Your task to perform on an android device: change the upload size in google photos Image 0: 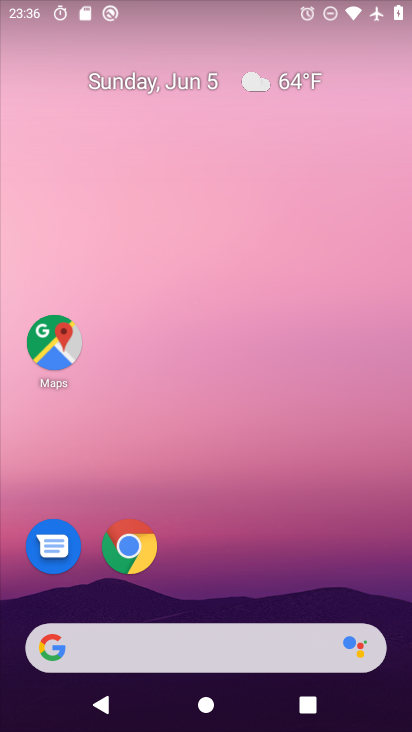
Step 0: click (345, 0)
Your task to perform on an android device: change the upload size in google photos Image 1: 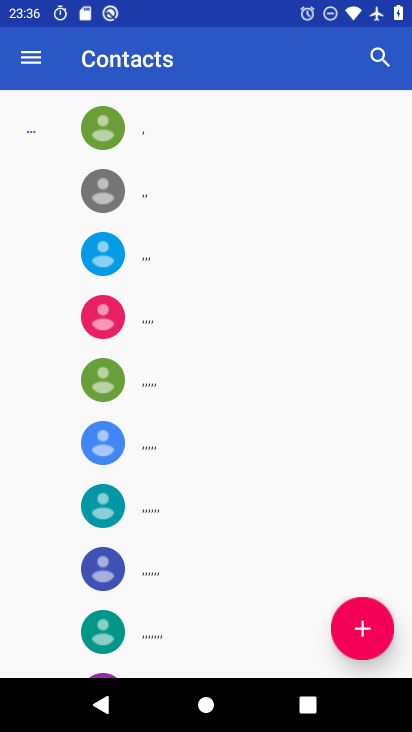
Step 1: drag from (176, 559) to (256, 315)
Your task to perform on an android device: change the upload size in google photos Image 2: 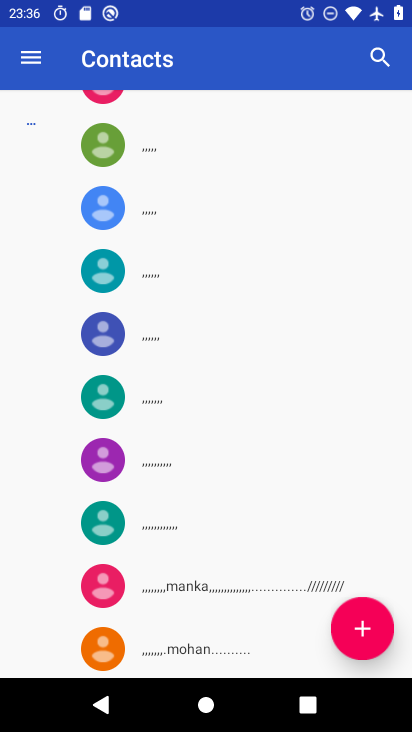
Step 2: press home button
Your task to perform on an android device: change the upload size in google photos Image 3: 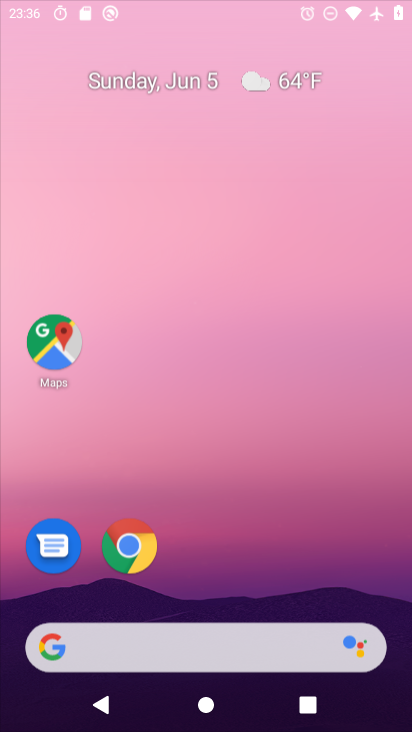
Step 3: drag from (214, 559) to (260, 330)
Your task to perform on an android device: change the upload size in google photos Image 4: 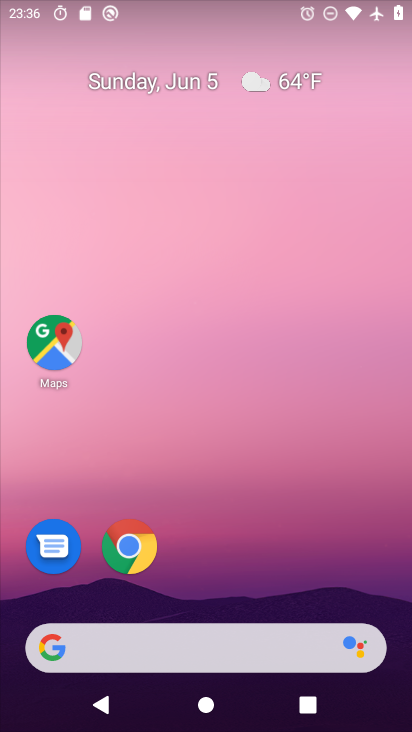
Step 4: drag from (190, 467) to (292, 8)
Your task to perform on an android device: change the upload size in google photos Image 5: 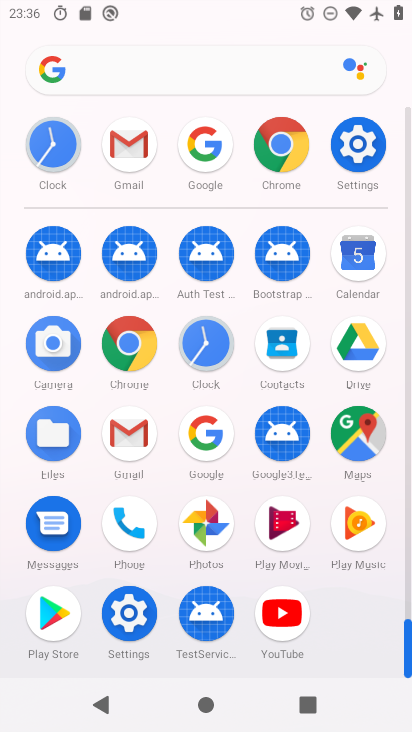
Step 5: click (197, 516)
Your task to perform on an android device: change the upload size in google photos Image 6: 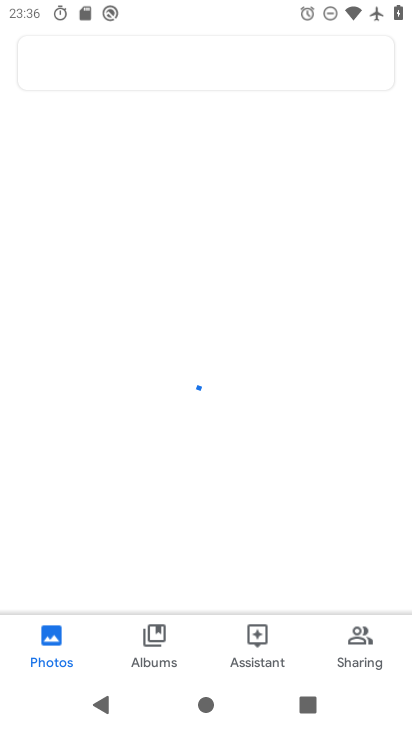
Step 6: drag from (196, 511) to (187, 174)
Your task to perform on an android device: change the upload size in google photos Image 7: 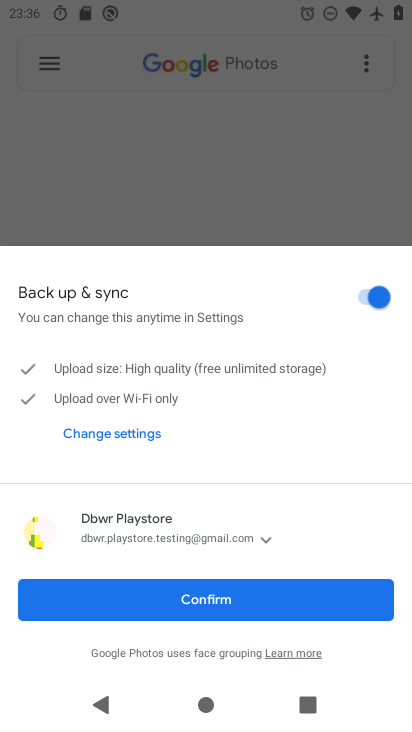
Step 7: click (150, 608)
Your task to perform on an android device: change the upload size in google photos Image 8: 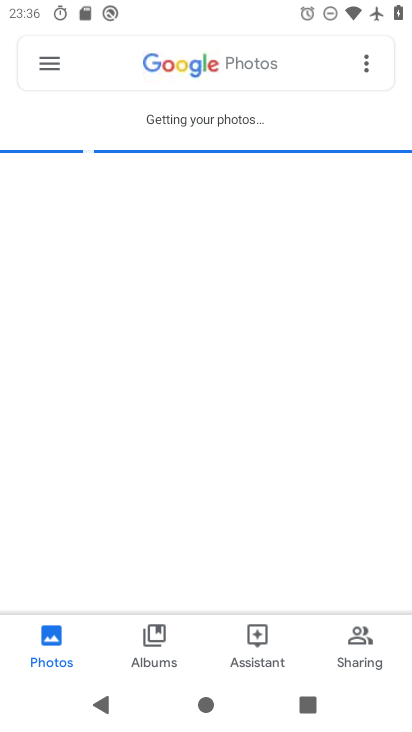
Step 8: drag from (205, 547) to (242, 169)
Your task to perform on an android device: change the upload size in google photos Image 9: 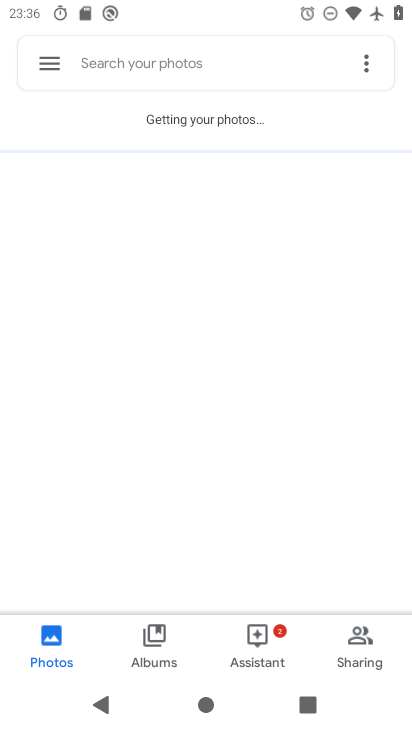
Step 9: click (75, 75)
Your task to perform on an android device: change the upload size in google photos Image 10: 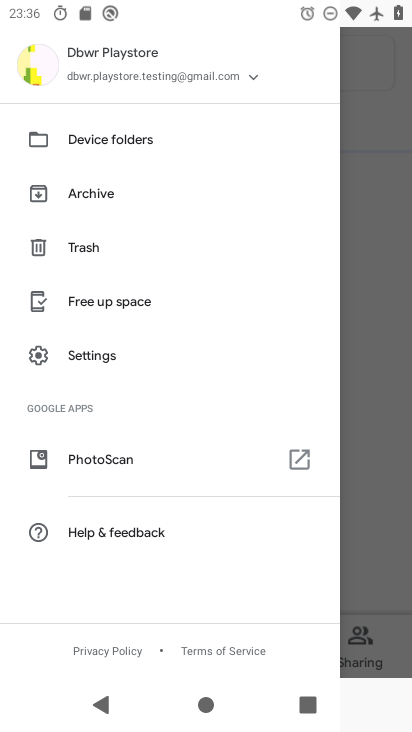
Step 10: click (72, 340)
Your task to perform on an android device: change the upload size in google photos Image 11: 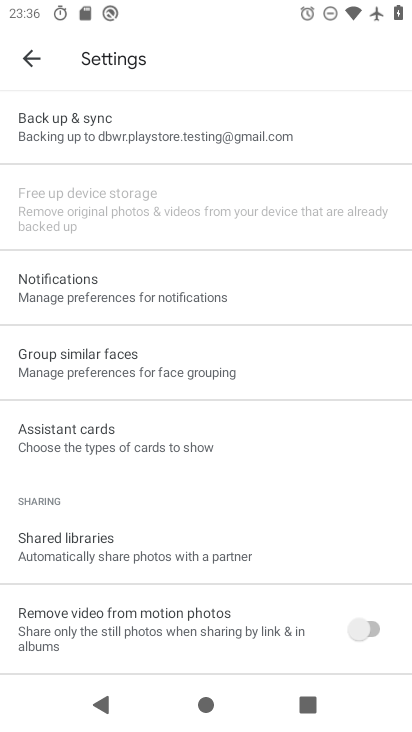
Step 11: click (105, 143)
Your task to perform on an android device: change the upload size in google photos Image 12: 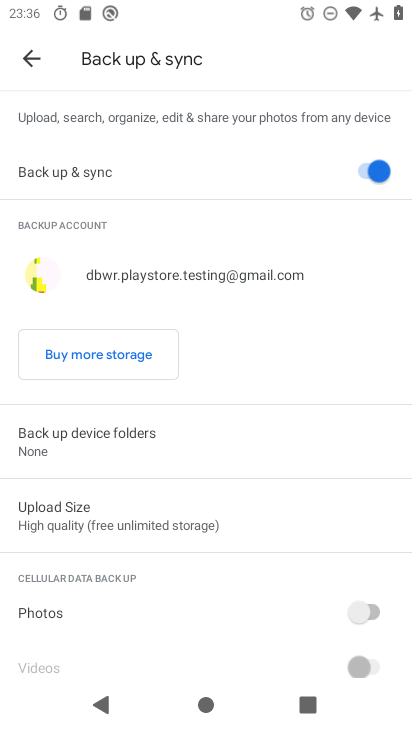
Step 12: drag from (145, 414) to (291, 20)
Your task to perform on an android device: change the upload size in google photos Image 13: 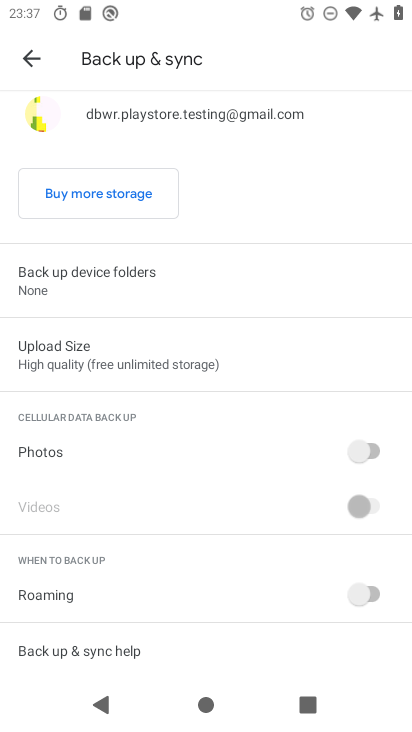
Step 13: click (80, 367)
Your task to perform on an android device: change the upload size in google photos Image 14: 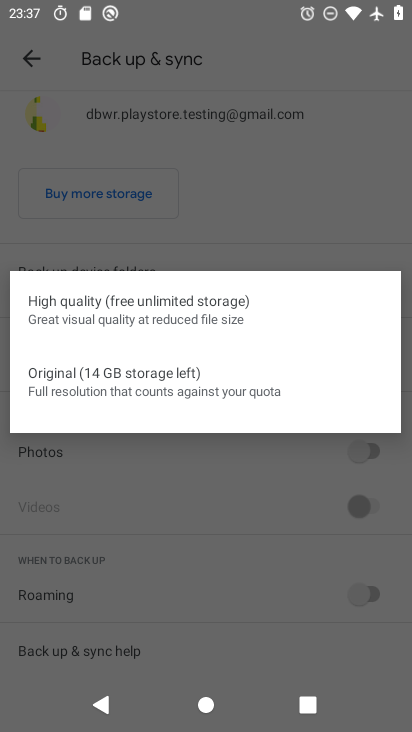
Step 14: click (150, 371)
Your task to perform on an android device: change the upload size in google photos Image 15: 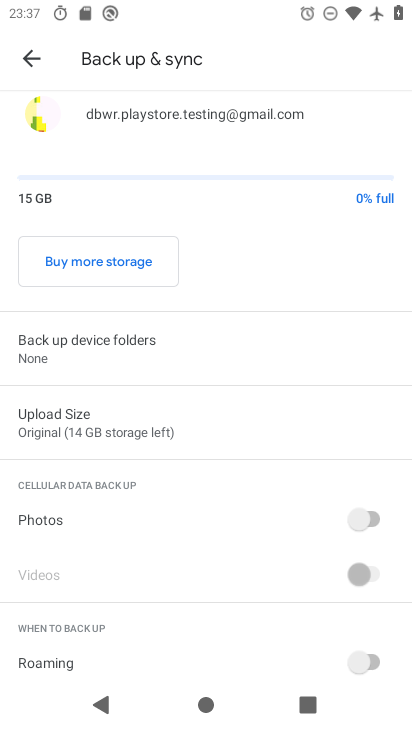
Step 15: drag from (116, 589) to (216, 320)
Your task to perform on an android device: change the upload size in google photos Image 16: 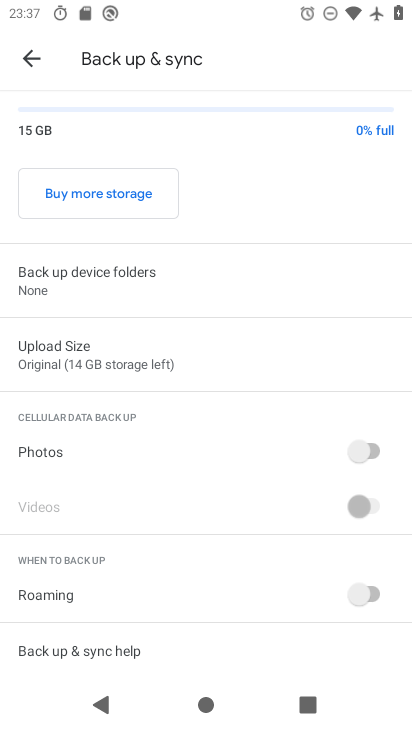
Step 16: click (138, 367)
Your task to perform on an android device: change the upload size in google photos Image 17: 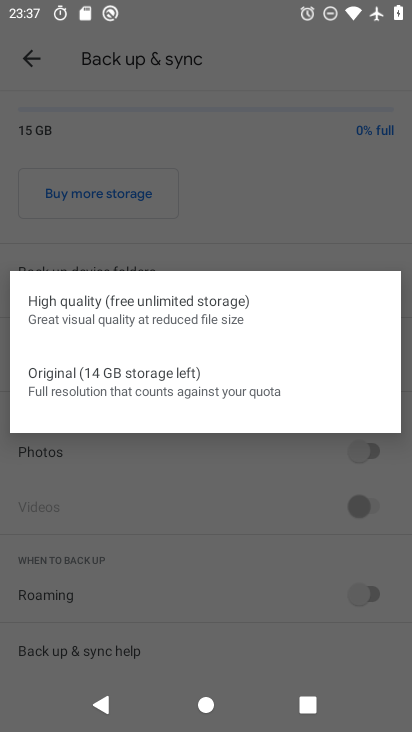
Step 17: task complete